Your task to perform on an android device: Open Maps and search for coffee Image 0: 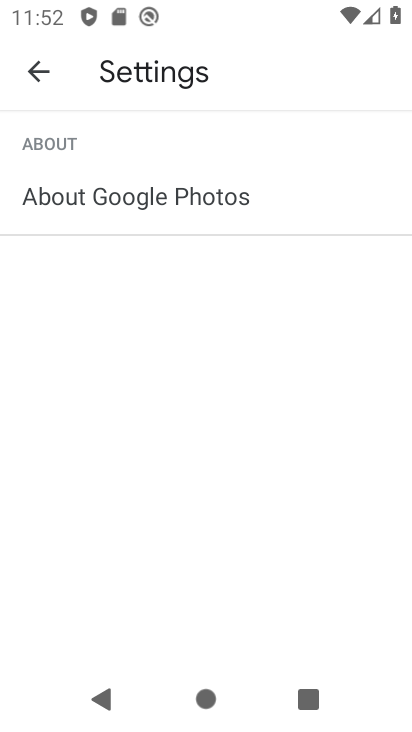
Step 0: press home button
Your task to perform on an android device: Open Maps and search for coffee Image 1: 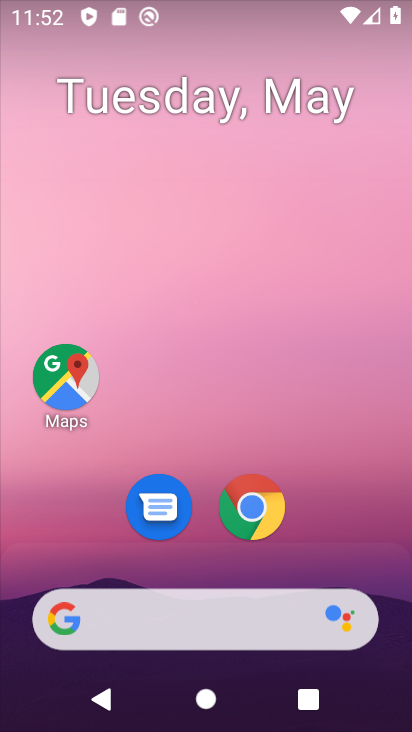
Step 1: click (48, 401)
Your task to perform on an android device: Open Maps and search for coffee Image 2: 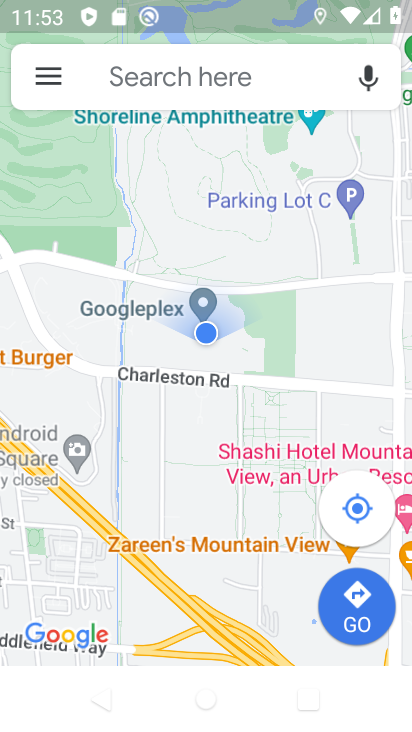
Step 2: click (152, 98)
Your task to perform on an android device: Open Maps and search for coffee Image 3: 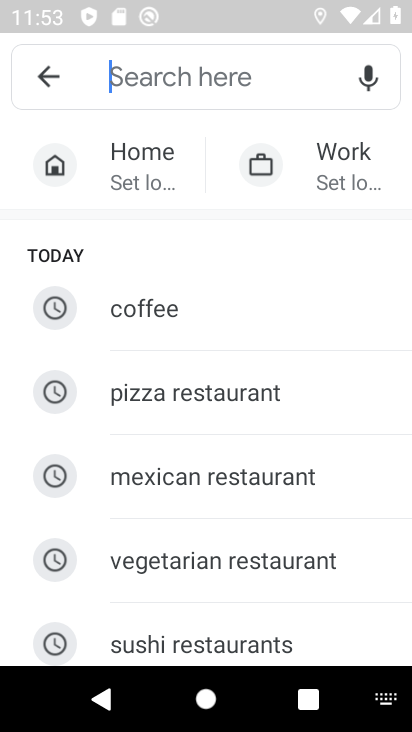
Step 3: click (203, 318)
Your task to perform on an android device: Open Maps and search for coffee Image 4: 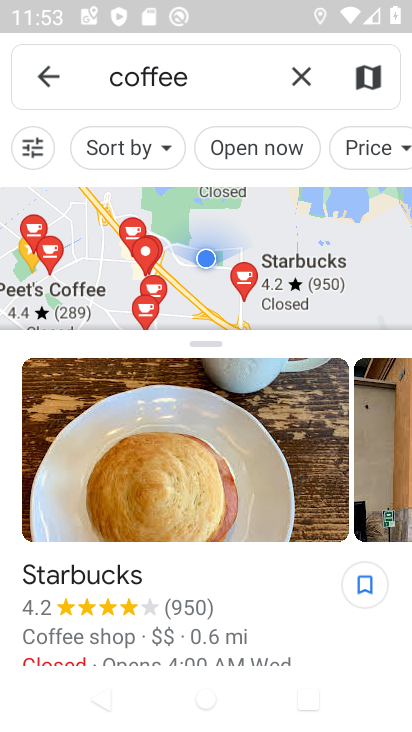
Step 4: task complete